Your task to perform on an android device: Search for flights from NYC to Tokyo Image 0: 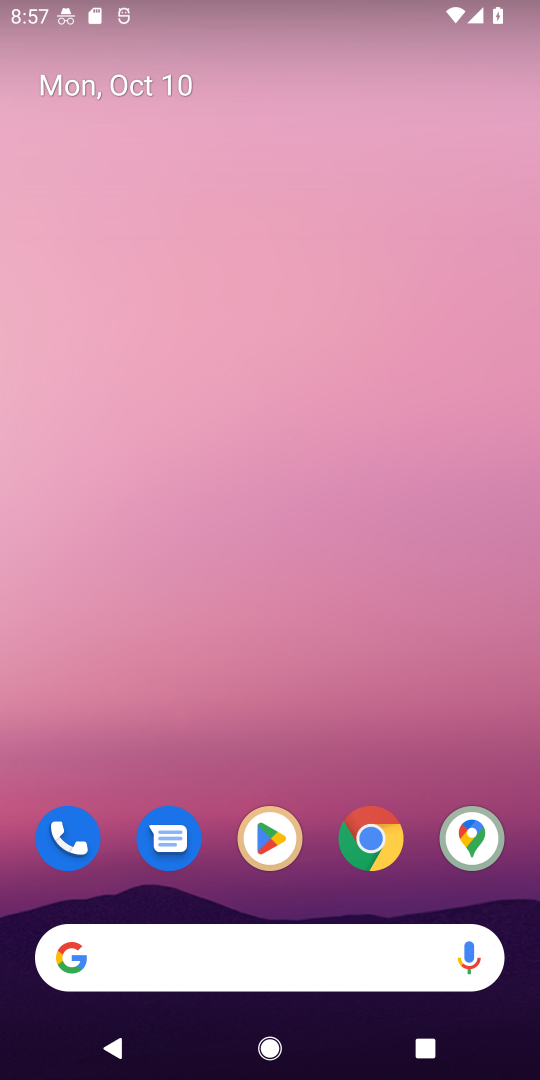
Step 0: click (370, 843)
Your task to perform on an android device: Search for flights from NYC to Tokyo Image 1: 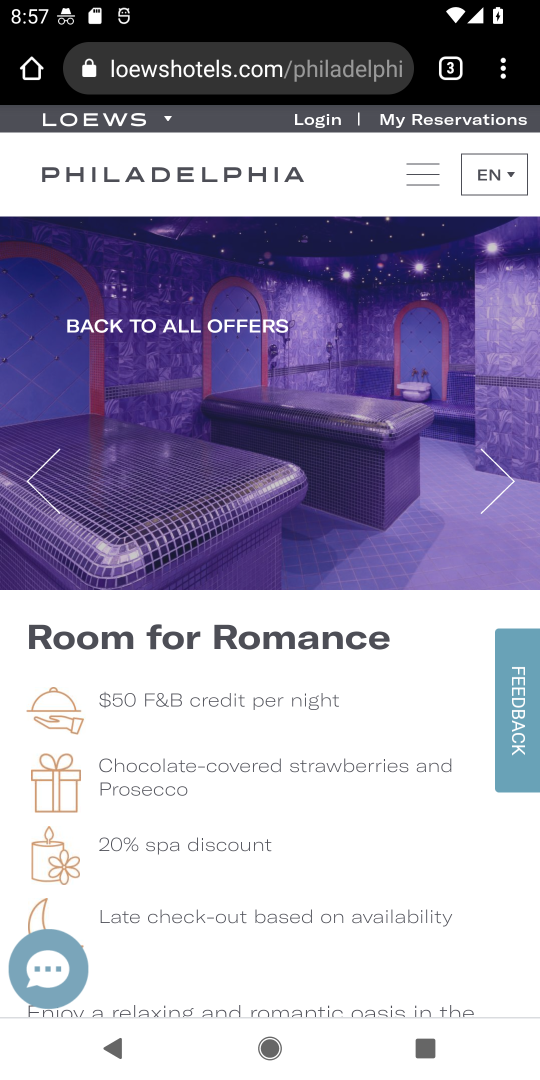
Step 1: click (259, 50)
Your task to perform on an android device: Search for flights from NYC to Tokyo Image 2: 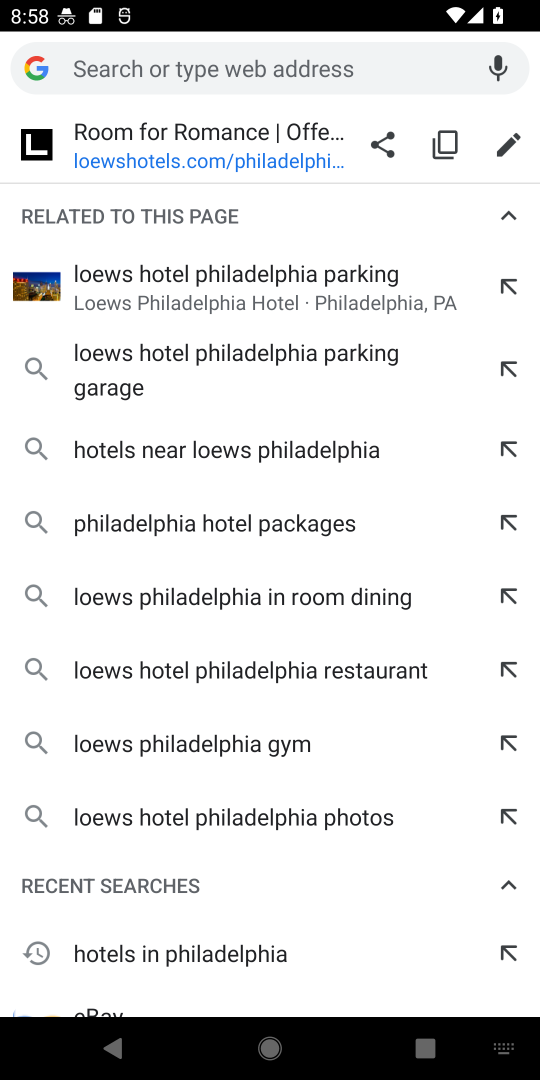
Step 2: type "flights from NYC to Tokyo"
Your task to perform on an android device: Search for flights from NYC to Tokyo Image 3: 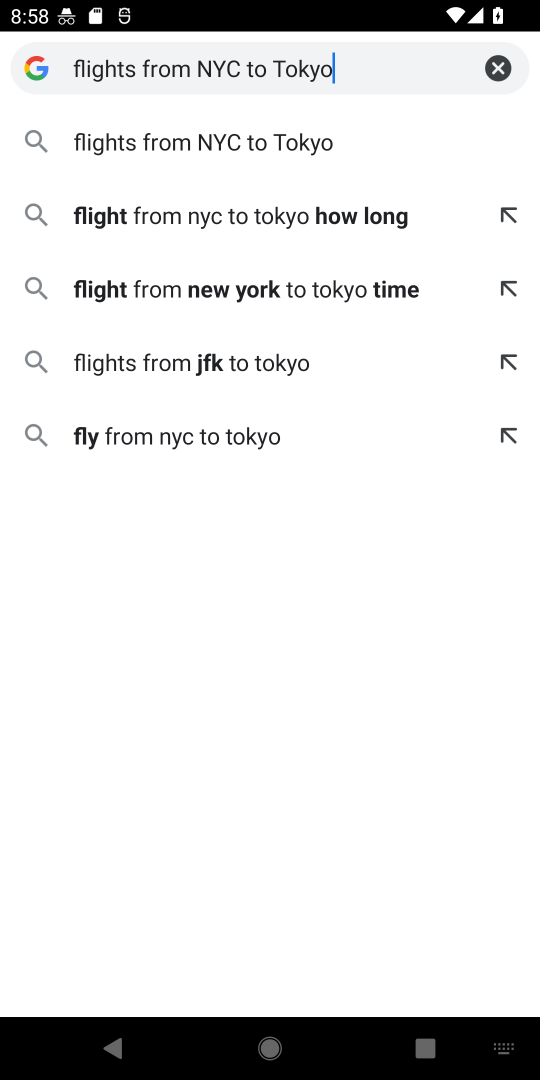
Step 3: click (148, 122)
Your task to perform on an android device: Search for flights from NYC to Tokyo Image 4: 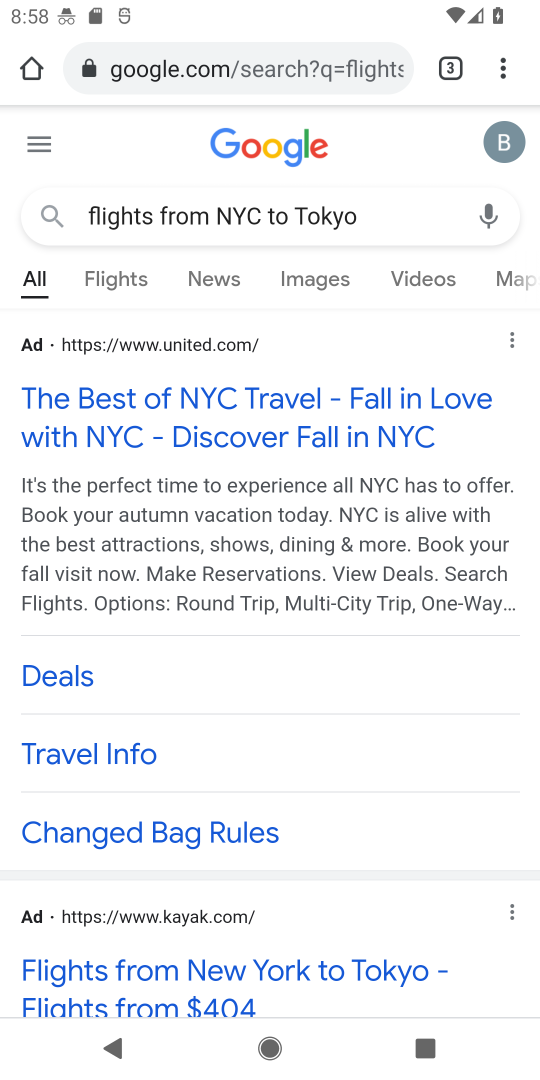
Step 4: drag from (259, 813) to (273, 420)
Your task to perform on an android device: Search for flights from NYC to Tokyo Image 5: 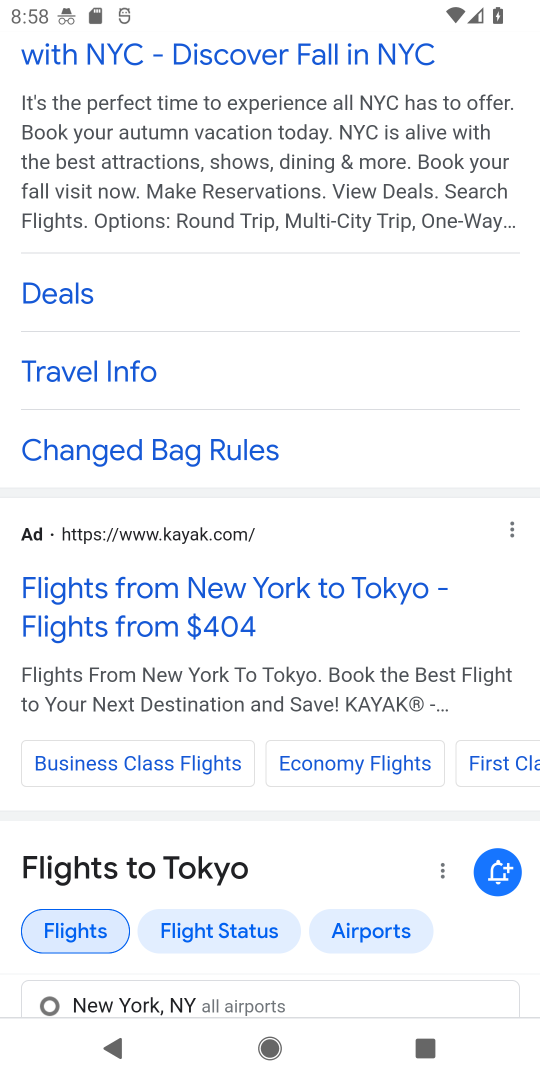
Step 5: drag from (270, 856) to (278, 181)
Your task to perform on an android device: Search for flights from NYC to Tokyo Image 6: 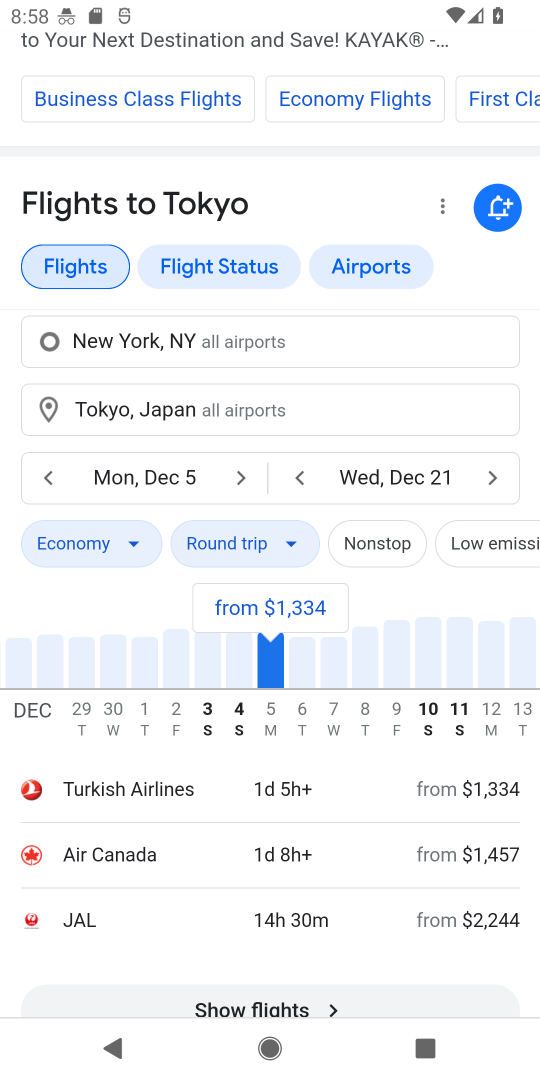
Step 6: drag from (205, 894) to (244, 399)
Your task to perform on an android device: Search for flights from NYC to Tokyo Image 7: 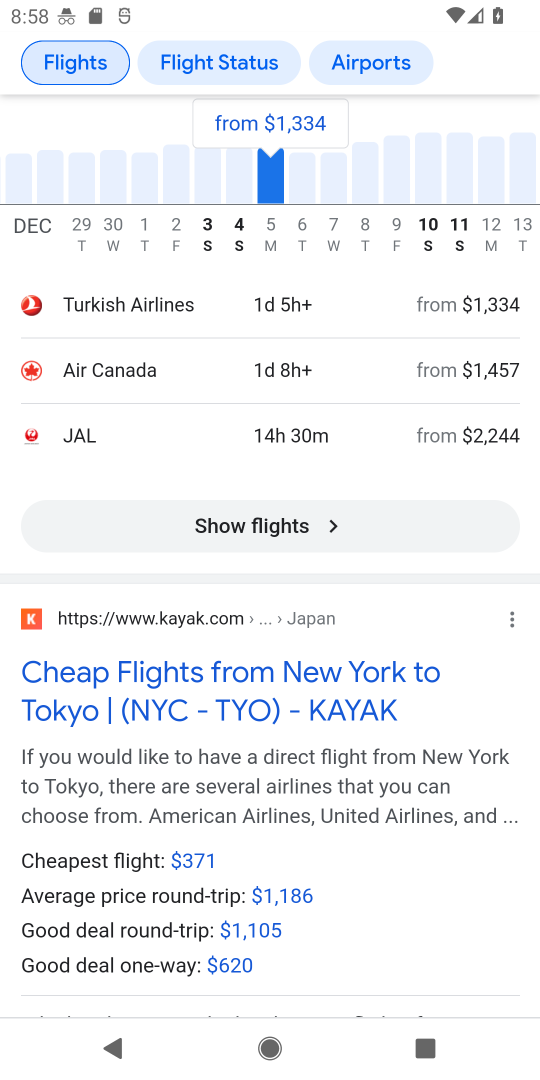
Step 7: click (242, 525)
Your task to perform on an android device: Search for flights from NYC to Tokyo Image 8: 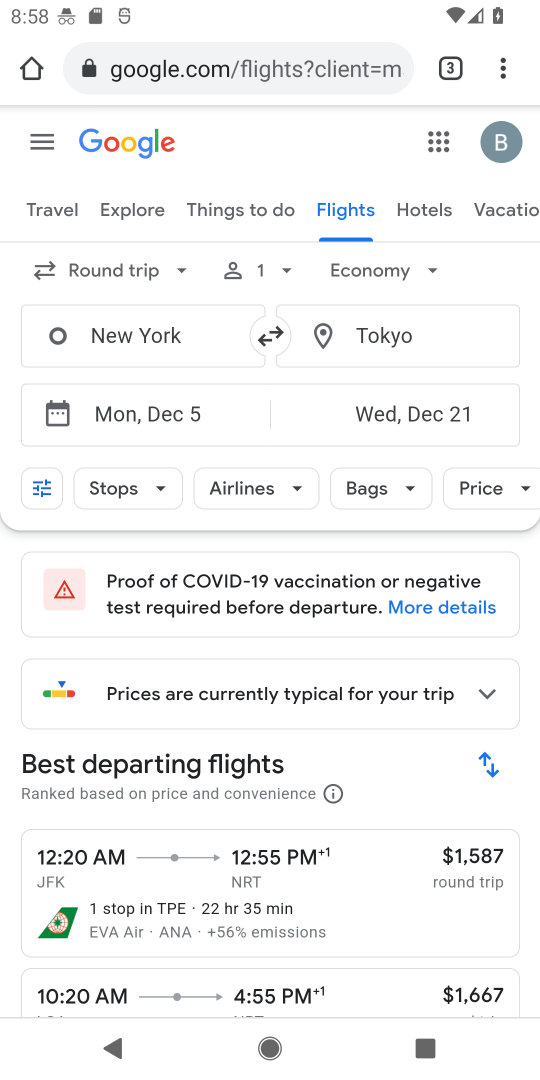
Step 8: task complete